Your task to perform on an android device: add a contact Image 0: 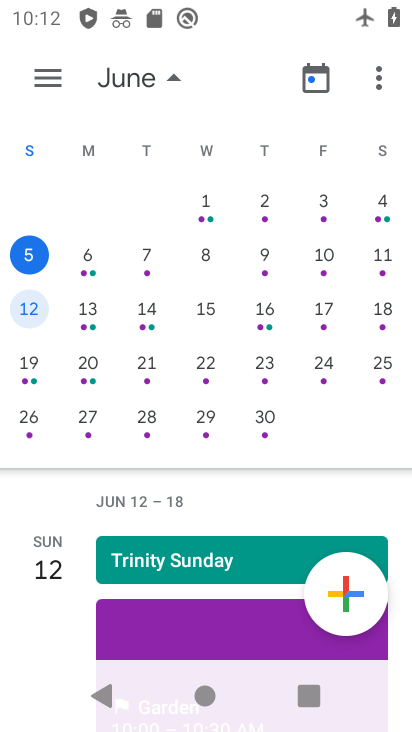
Step 0: press home button
Your task to perform on an android device: add a contact Image 1: 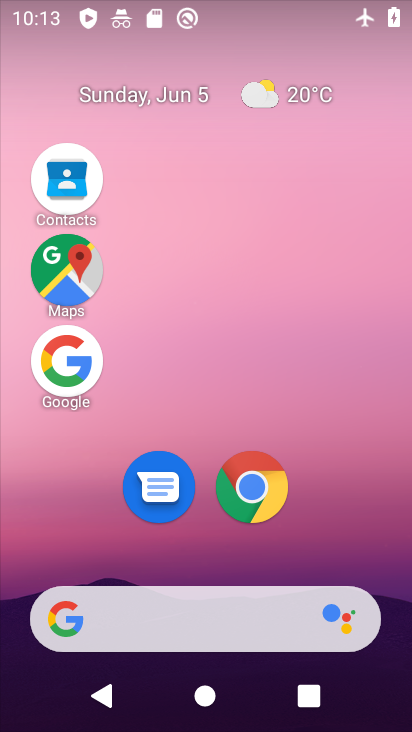
Step 1: drag from (261, 264) to (268, 130)
Your task to perform on an android device: add a contact Image 2: 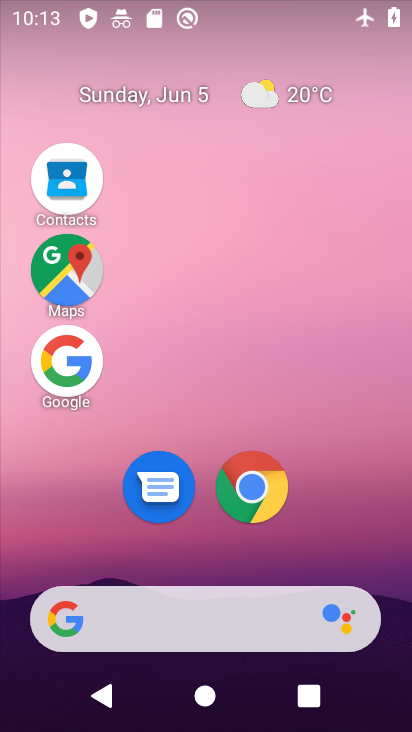
Step 2: drag from (241, 554) to (307, 71)
Your task to perform on an android device: add a contact Image 3: 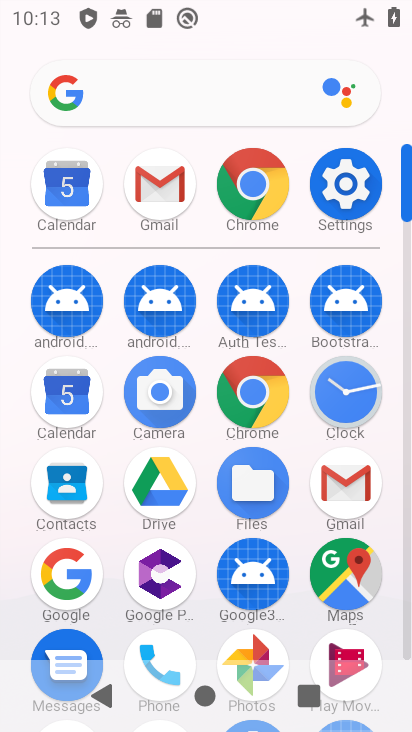
Step 3: click (54, 504)
Your task to perform on an android device: add a contact Image 4: 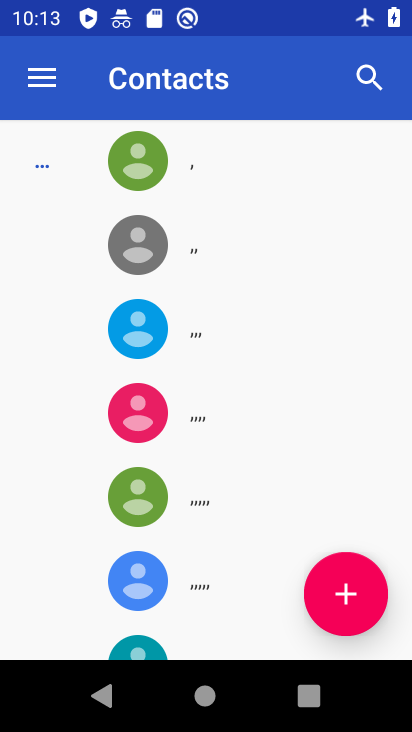
Step 4: click (360, 609)
Your task to perform on an android device: add a contact Image 5: 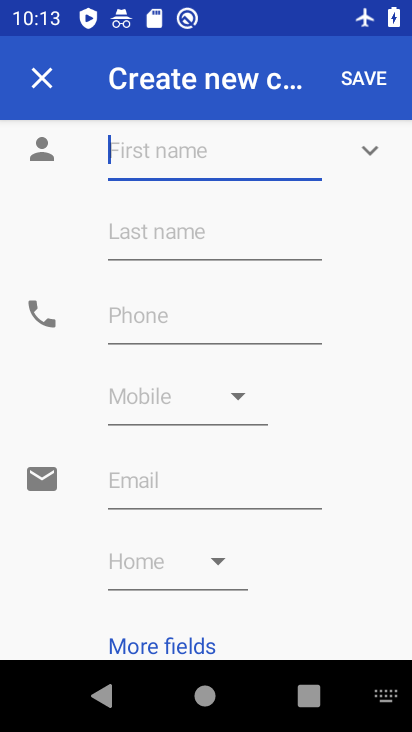
Step 5: type "gudjjsgjv"
Your task to perform on an android device: add a contact Image 6: 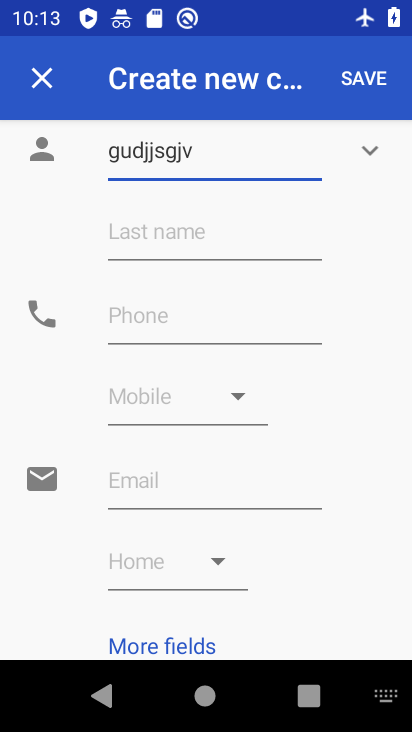
Step 6: click (256, 319)
Your task to perform on an android device: add a contact Image 7: 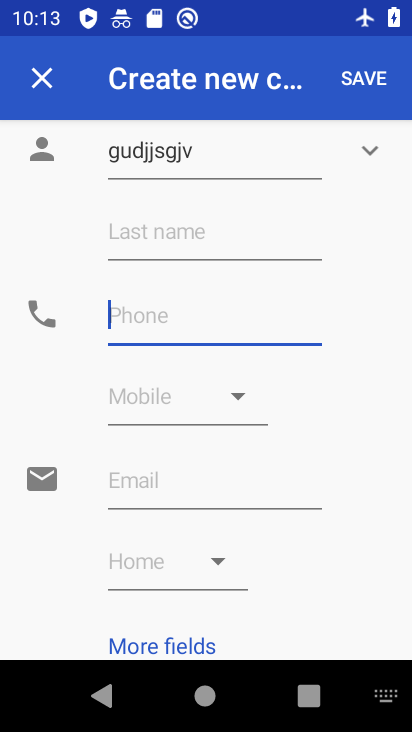
Step 7: type "966688554"
Your task to perform on an android device: add a contact Image 8: 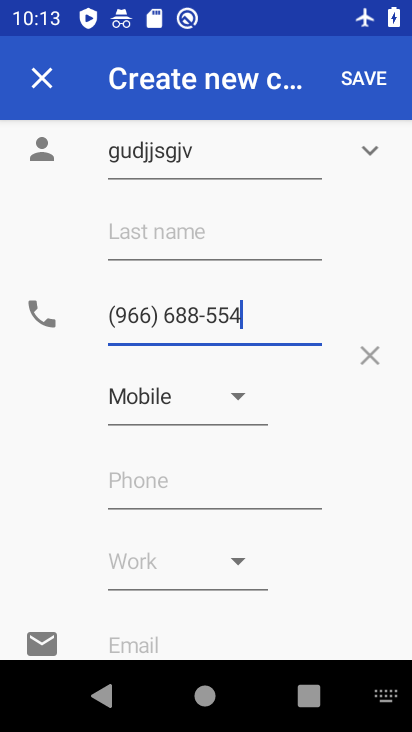
Step 8: type ""
Your task to perform on an android device: add a contact Image 9: 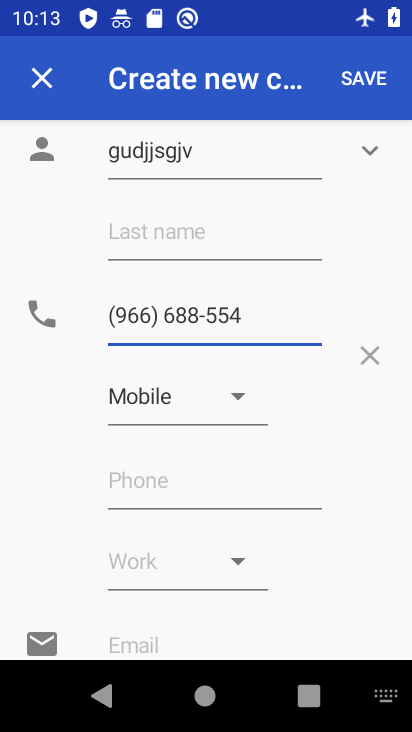
Step 9: click (371, 86)
Your task to perform on an android device: add a contact Image 10: 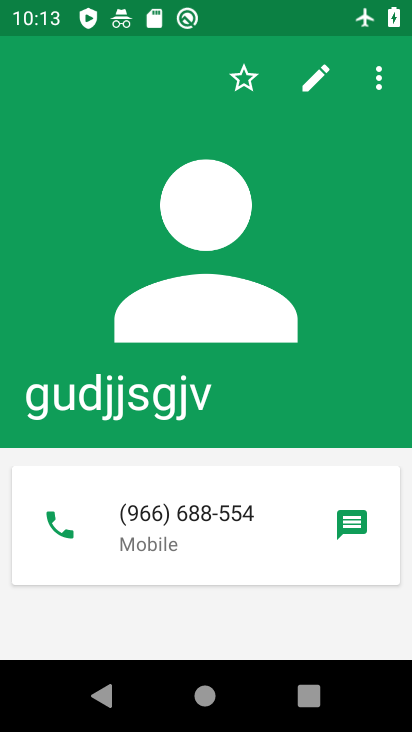
Step 10: task complete